Your task to perform on an android device: uninstall "Booking.com: Hotels and more" Image 0: 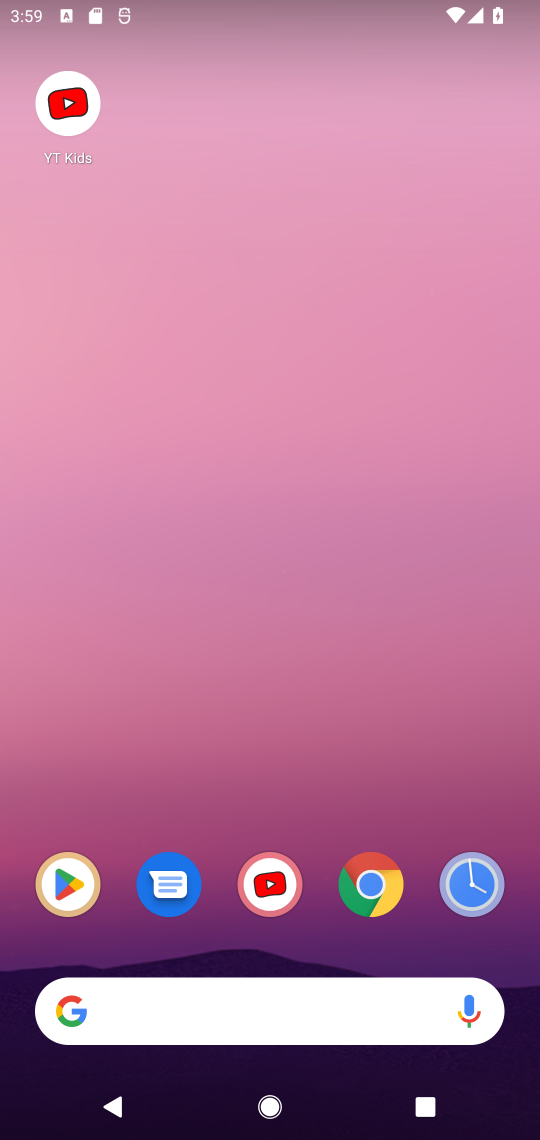
Step 0: click (65, 875)
Your task to perform on an android device: uninstall "Booking.com: Hotels and more" Image 1: 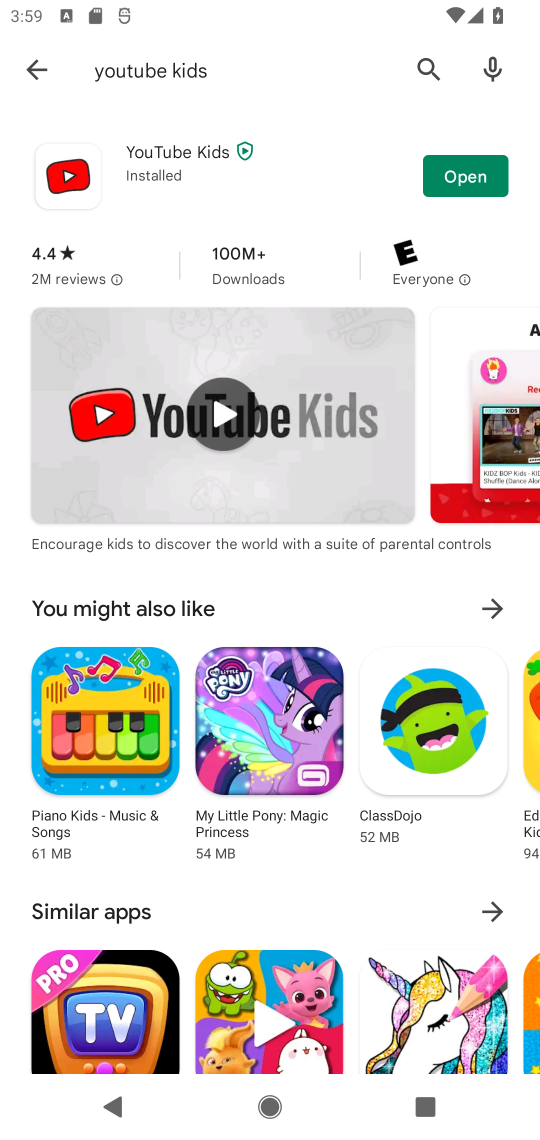
Step 1: click (35, 67)
Your task to perform on an android device: uninstall "Booking.com: Hotels and more" Image 2: 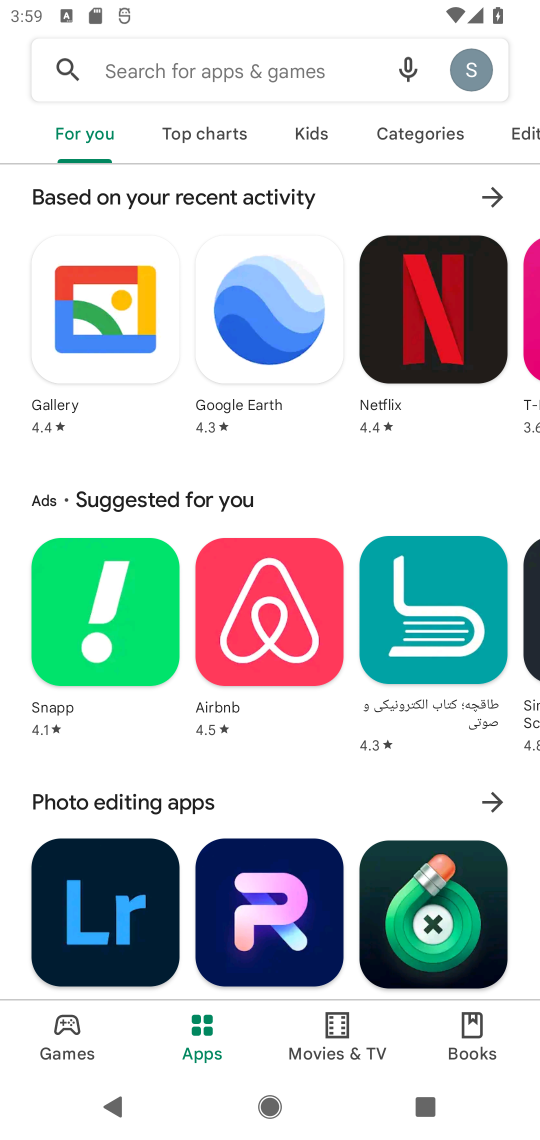
Step 2: click (179, 67)
Your task to perform on an android device: uninstall "Booking.com: Hotels and more" Image 3: 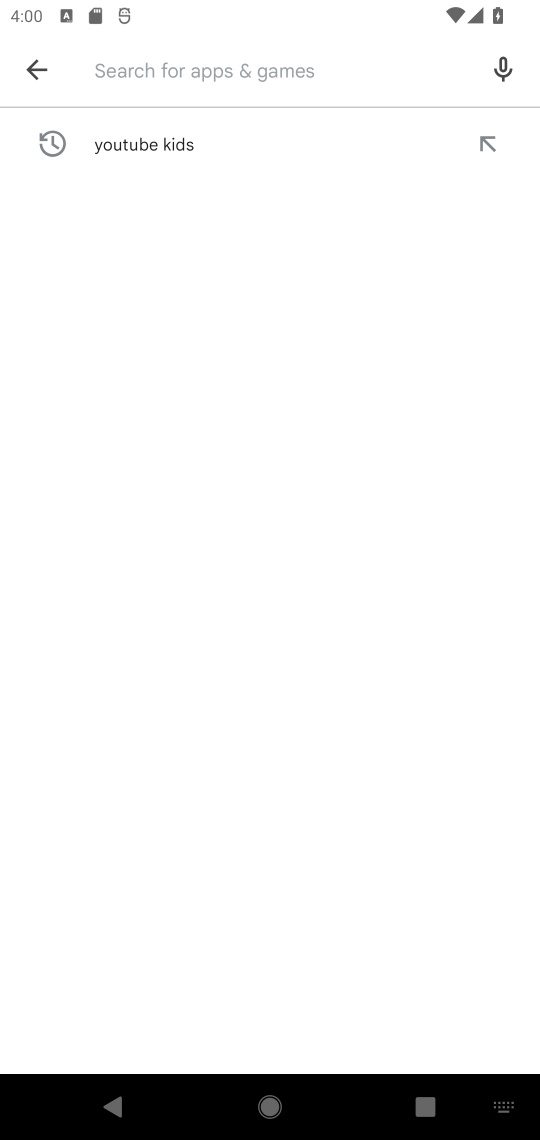
Step 3: type "Booking.com: Hotels and more"
Your task to perform on an android device: uninstall "Booking.com: Hotels and more" Image 4: 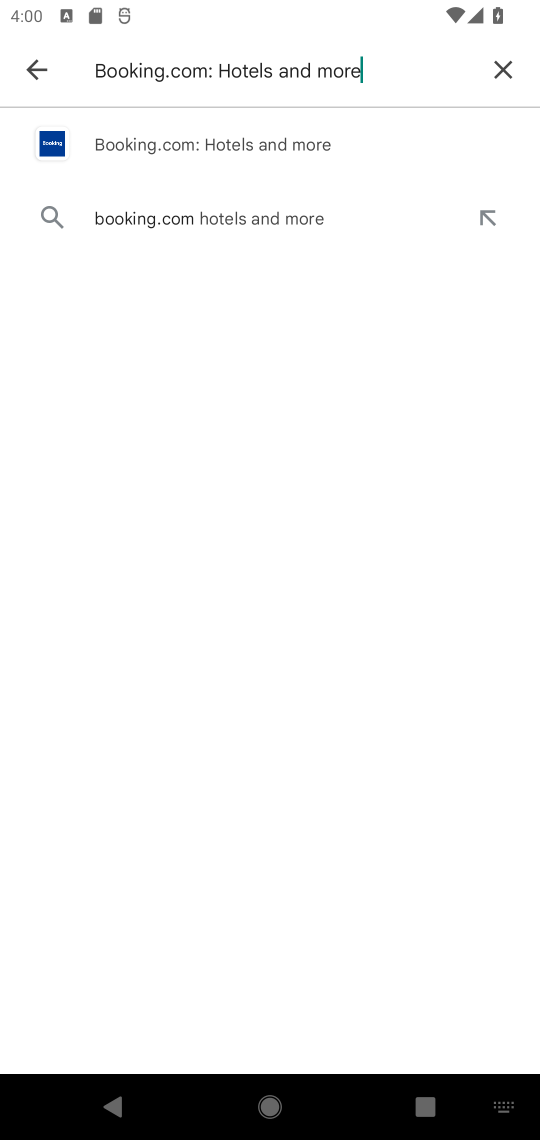
Step 4: click (198, 145)
Your task to perform on an android device: uninstall "Booking.com: Hotels and more" Image 5: 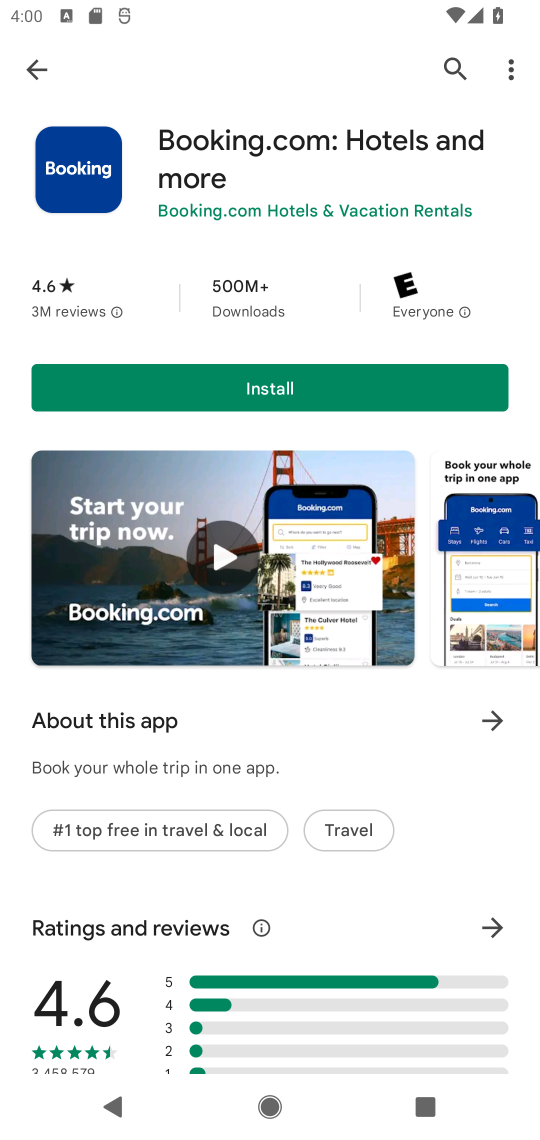
Step 5: click (262, 383)
Your task to perform on an android device: uninstall "Booking.com: Hotels and more" Image 6: 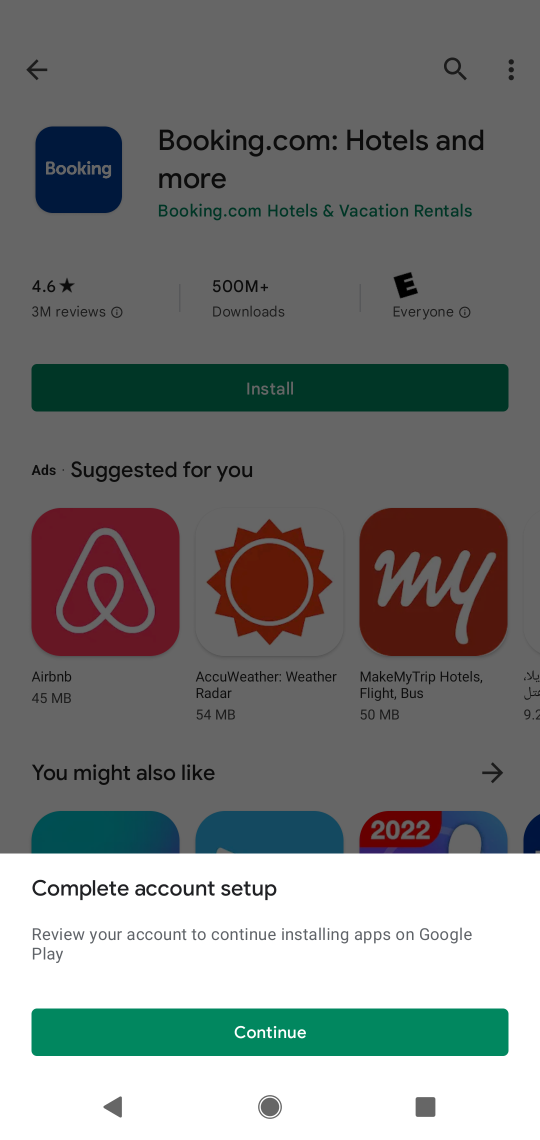
Step 6: click (260, 1035)
Your task to perform on an android device: uninstall "Booking.com: Hotels and more" Image 7: 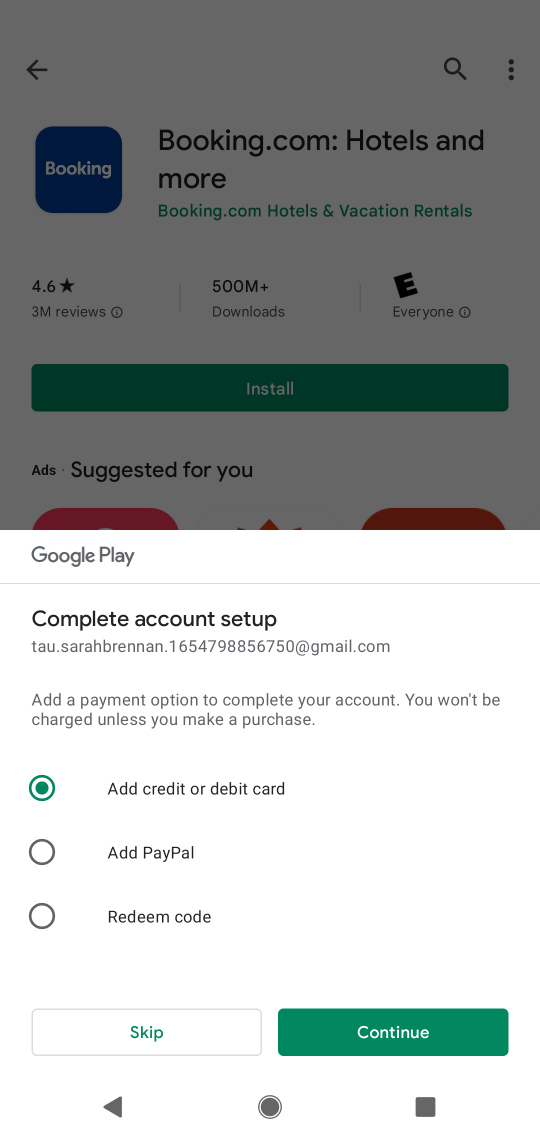
Step 7: click (106, 1035)
Your task to perform on an android device: uninstall "Booking.com: Hotels and more" Image 8: 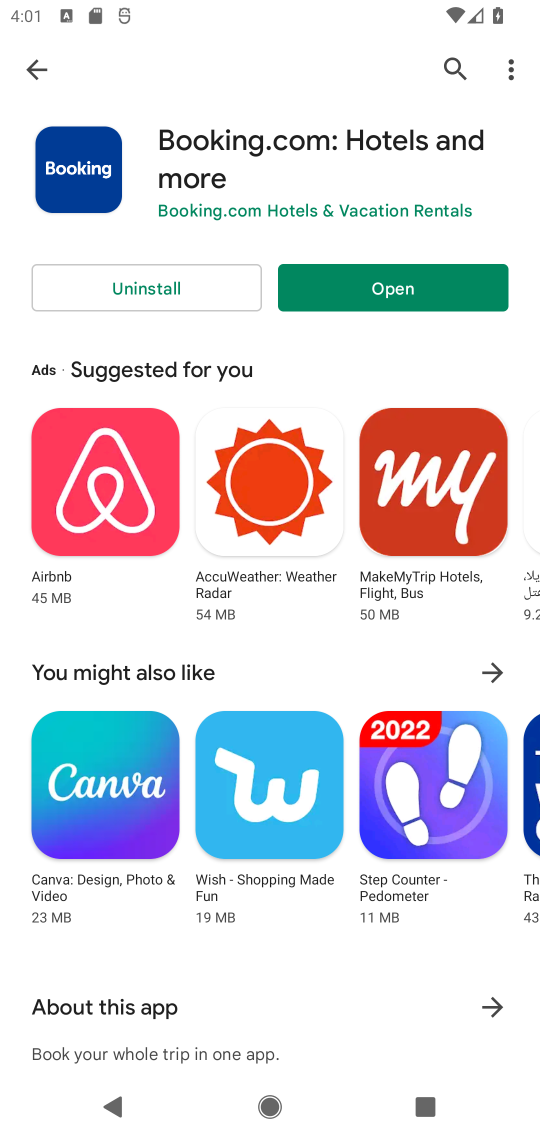
Step 8: click (154, 277)
Your task to perform on an android device: uninstall "Booking.com: Hotels and more" Image 9: 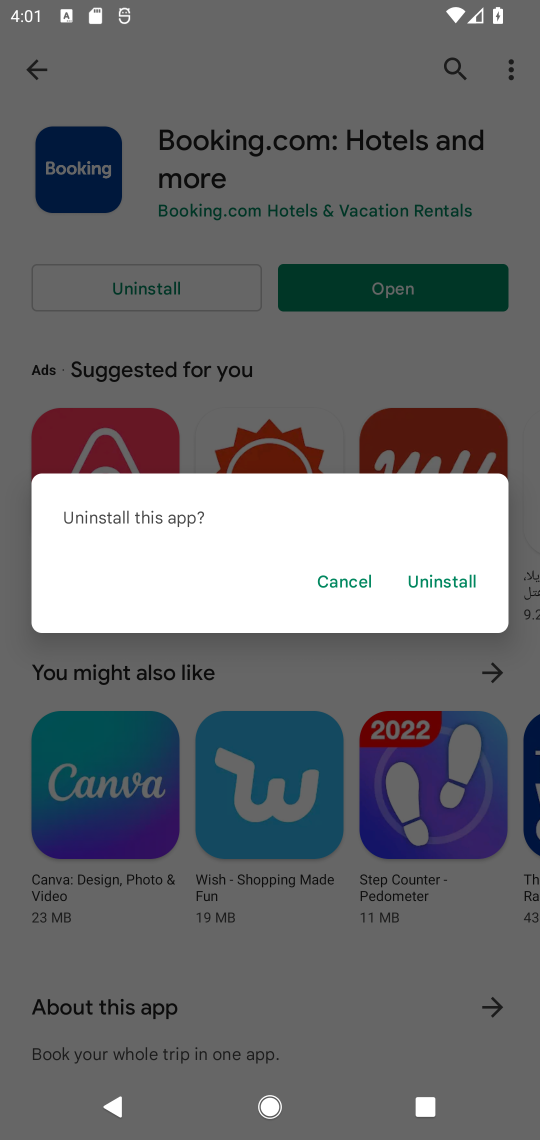
Step 9: click (468, 578)
Your task to perform on an android device: uninstall "Booking.com: Hotels and more" Image 10: 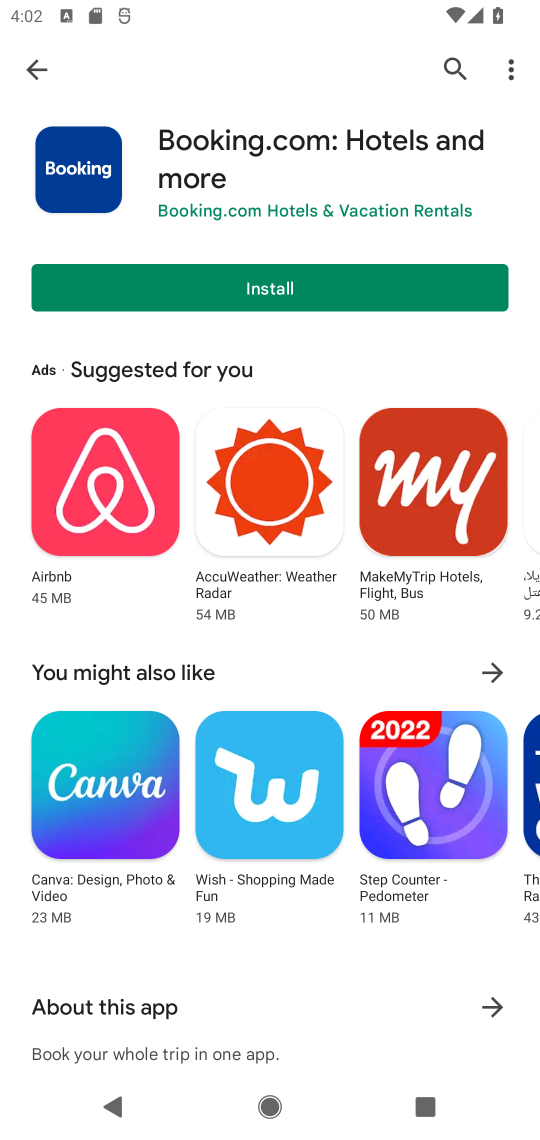
Step 10: task complete